Your task to perform on an android device: turn notification dots off Image 0: 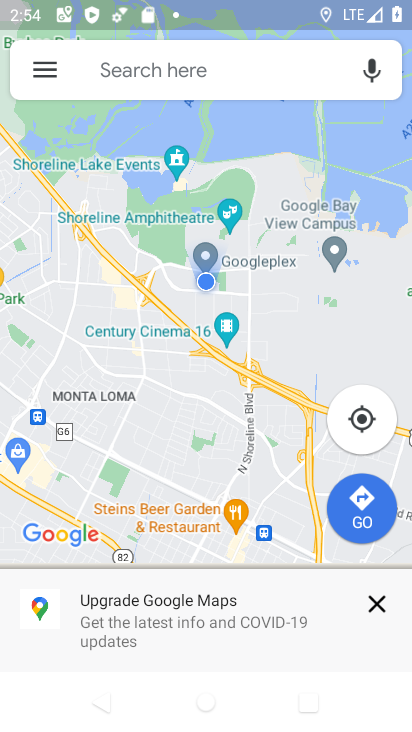
Step 0: press home button
Your task to perform on an android device: turn notification dots off Image 1: 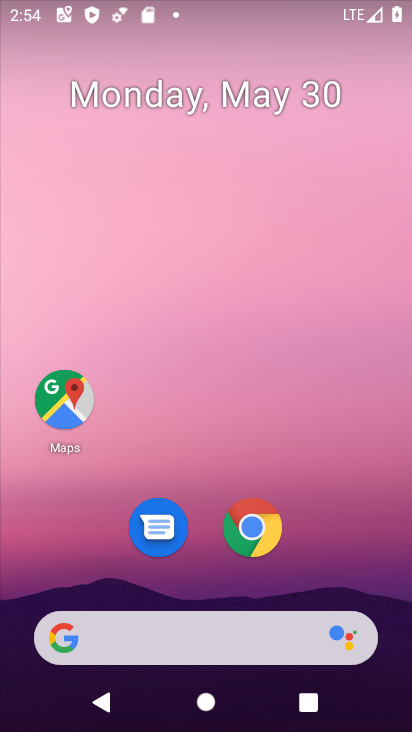
Step 1: drag from (343, 559) to (328, 110)
Your task to perform on an android device: turn notification dots off Image 2: 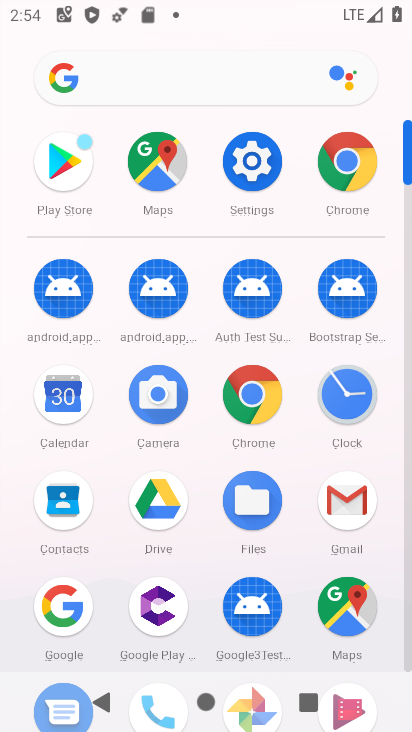
Step 2: click (255, 157)
Your task to perform on an android device: turn notification dots off Image 3: 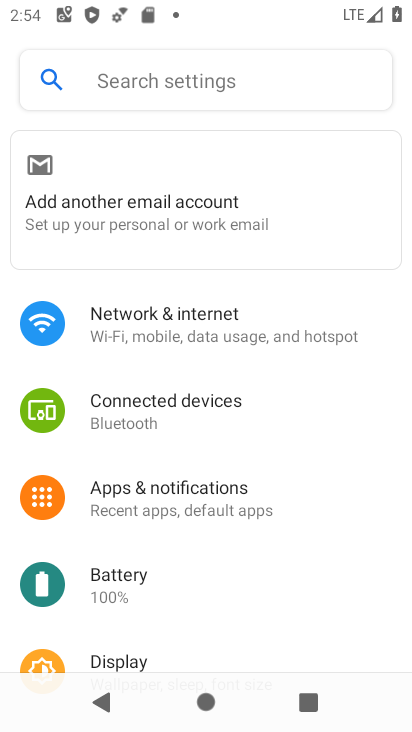
Step 3: click (191, 494)
Your task to perform on an android device: turn notification dots off Image 4: 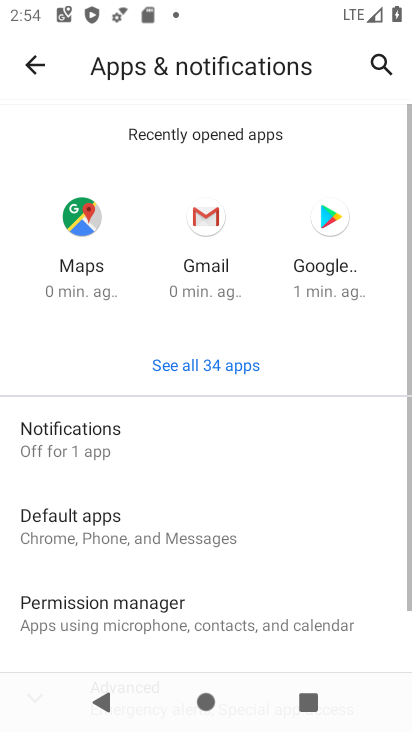
Step 4: click (79, 429)
Your task to perform on an android device: turn notification dots off Image 5: 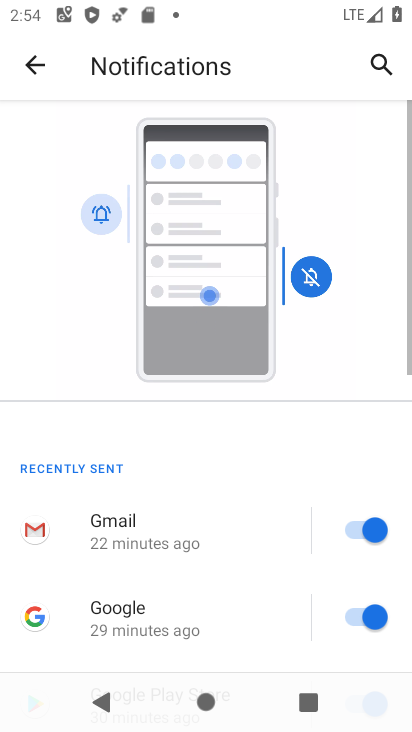
Step 5: drag from (257, 546) to (205, 123)
Your task to perform on an android device: turn notification dots off Image 6: 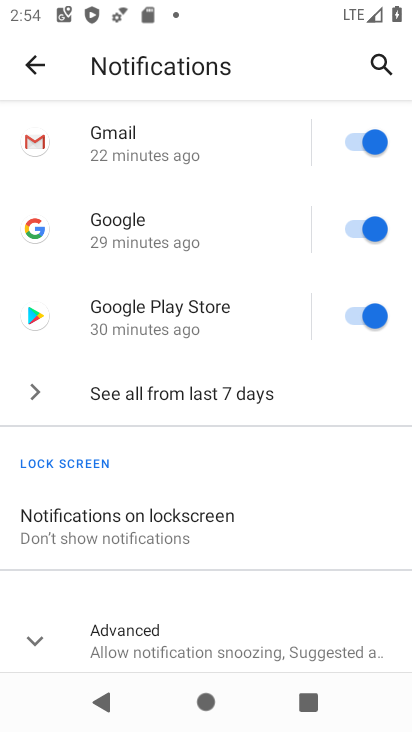
Step 6: drag from (183, 592) to (220, 278)
Your task to perform on an android device: turn notification dots off Image 7: 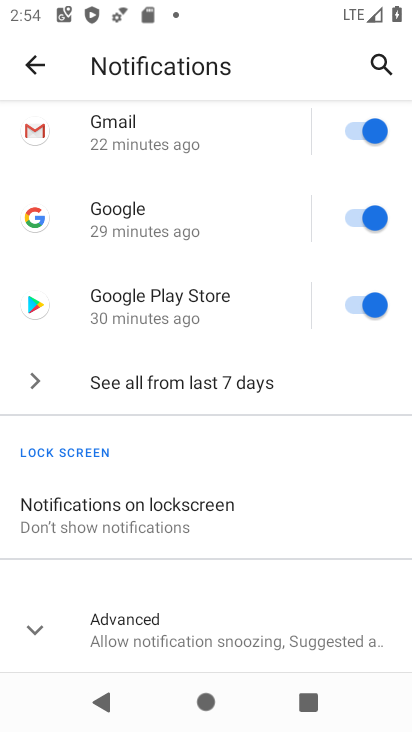
Step 7: click (127, 633)
Your task to perform on an android device: turn notification dots off Image 8: 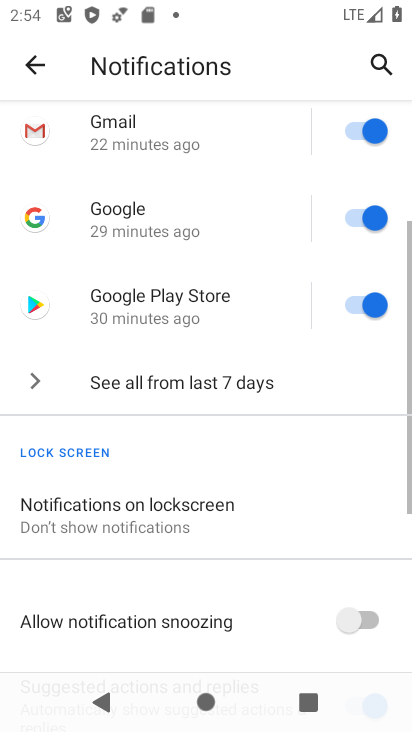
Step 8: drag from (224, 607) to (201, 307)
Your task to perform on an android device: turn notification dots off Image 9: 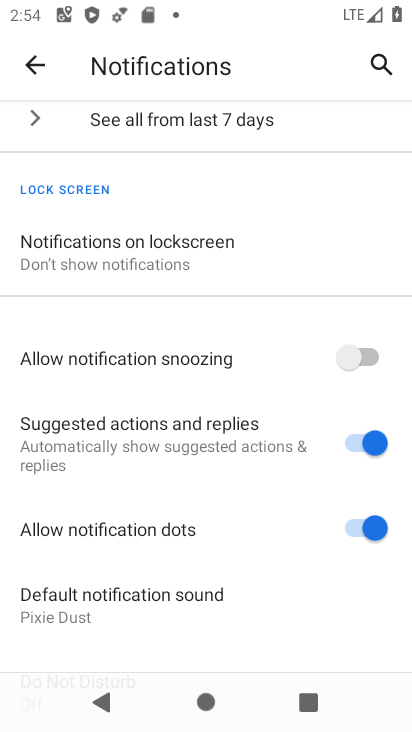
Step 9: click (366, 536)
Your task to perform on an android device: turn notification dots off Image 10: 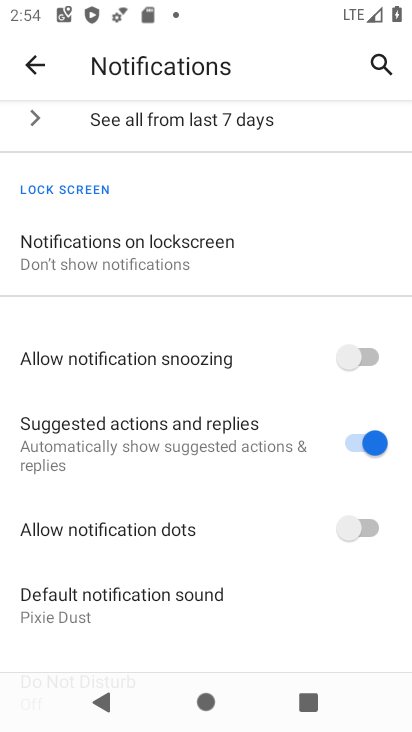
Step 10: task complete